Your task to perform on an android device: turn off airplane mode Image 0: 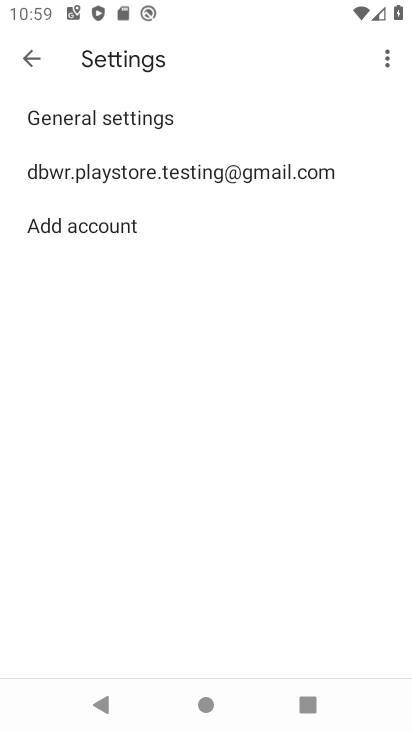
Step 0: click (25, 68)
Your task to perform on an android device: turn off airplane mode Image 1: 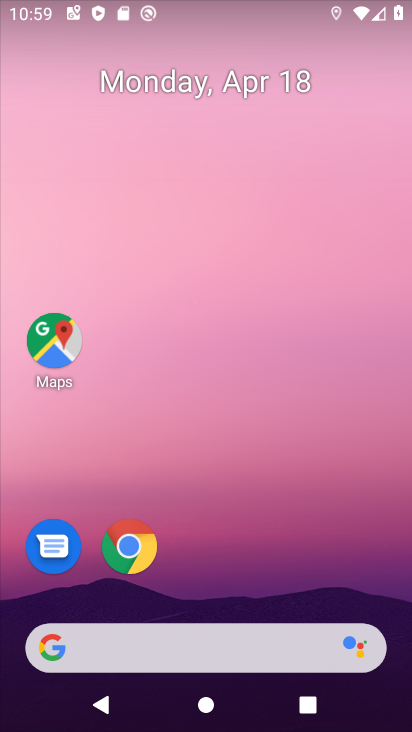
Step 1: drag from (278, 566) to (283, 189)
Your task to perform on an android device: turn off airplane mode Image 2: 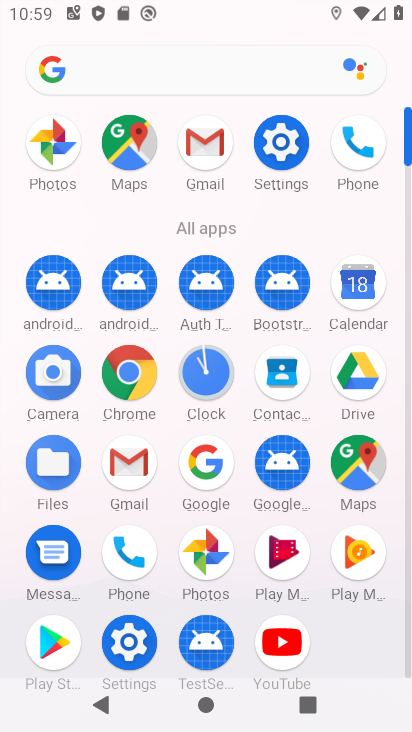
Step 2: click (280, 162)
Your task to perform on an android device: turn off airplane mode Image 3: 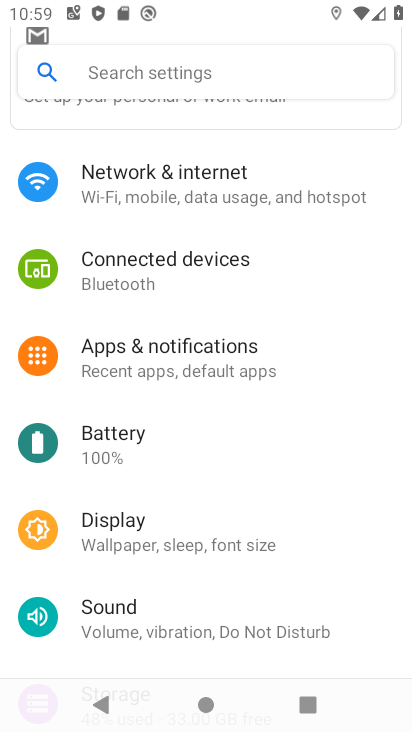
Step 3: drag from (232, 228) to (232, 528)
Your task to perform on an android device: turn off airplane mode Image 4: 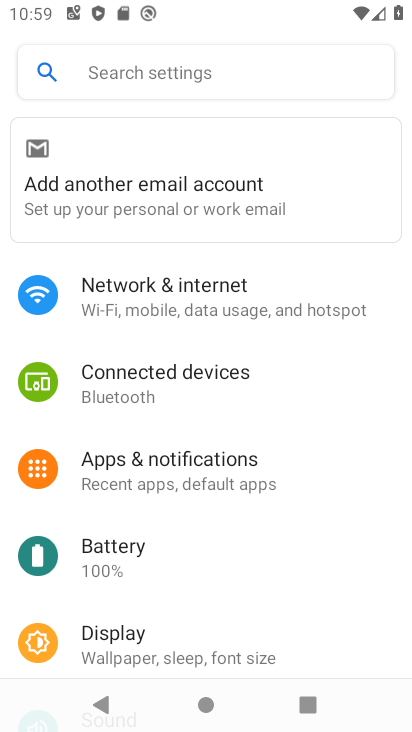
Step 4: click (240, 292)
Your task to perform on an android device: turn off airplane mode Image 5: 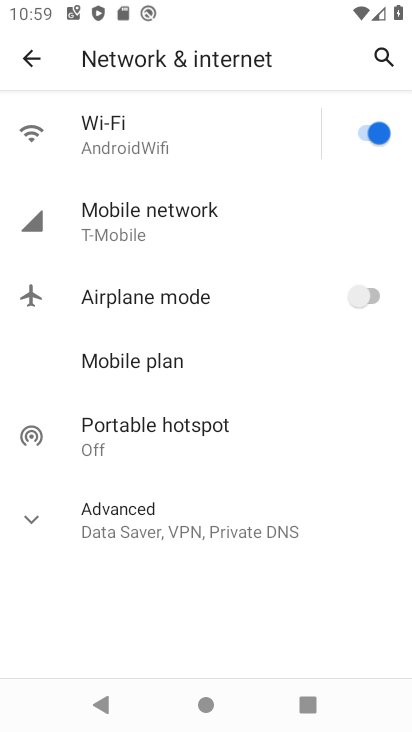
Step 5: task complete